Your task to perform on an android device: open app "Fetch Rewards" Image 0: 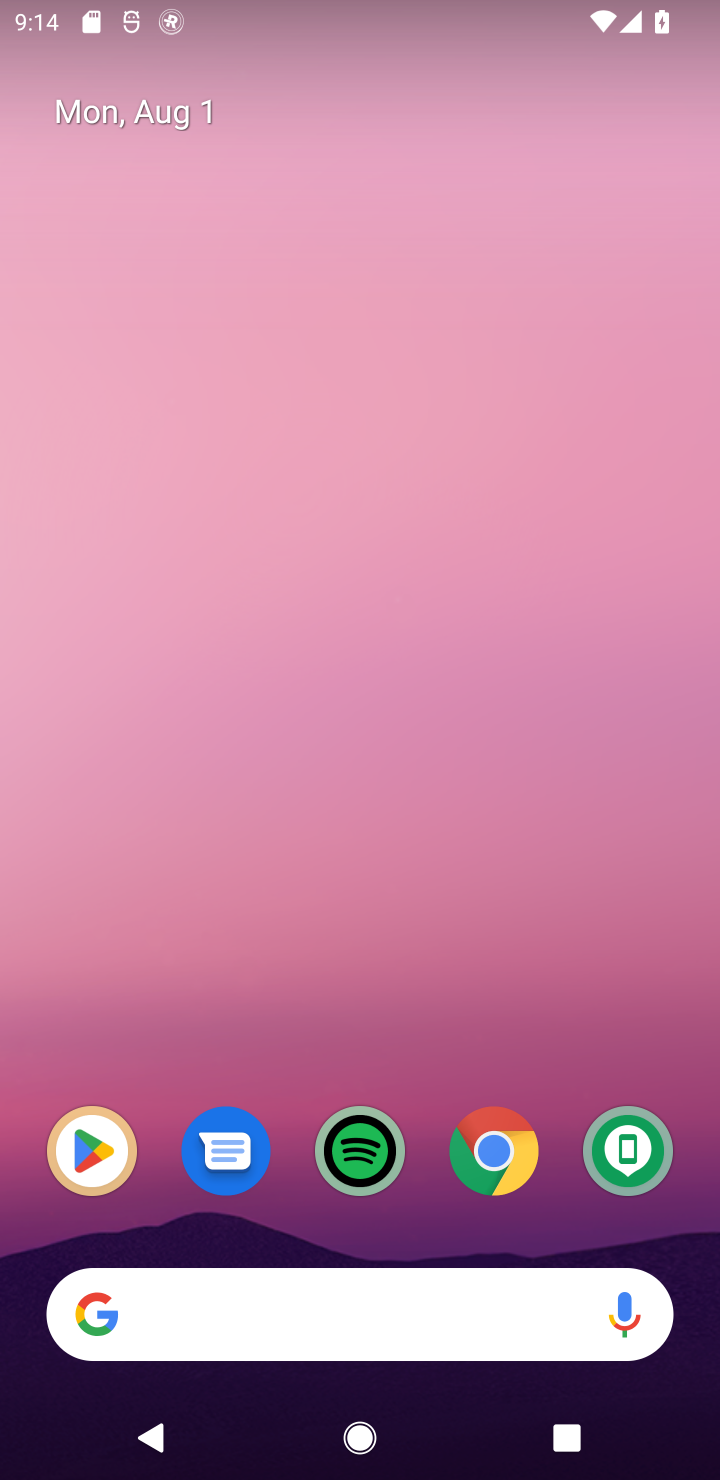
Step 0: click (102, 1141)
Your task to perform on an android device: open app "Fetch Rewards" Image 1: 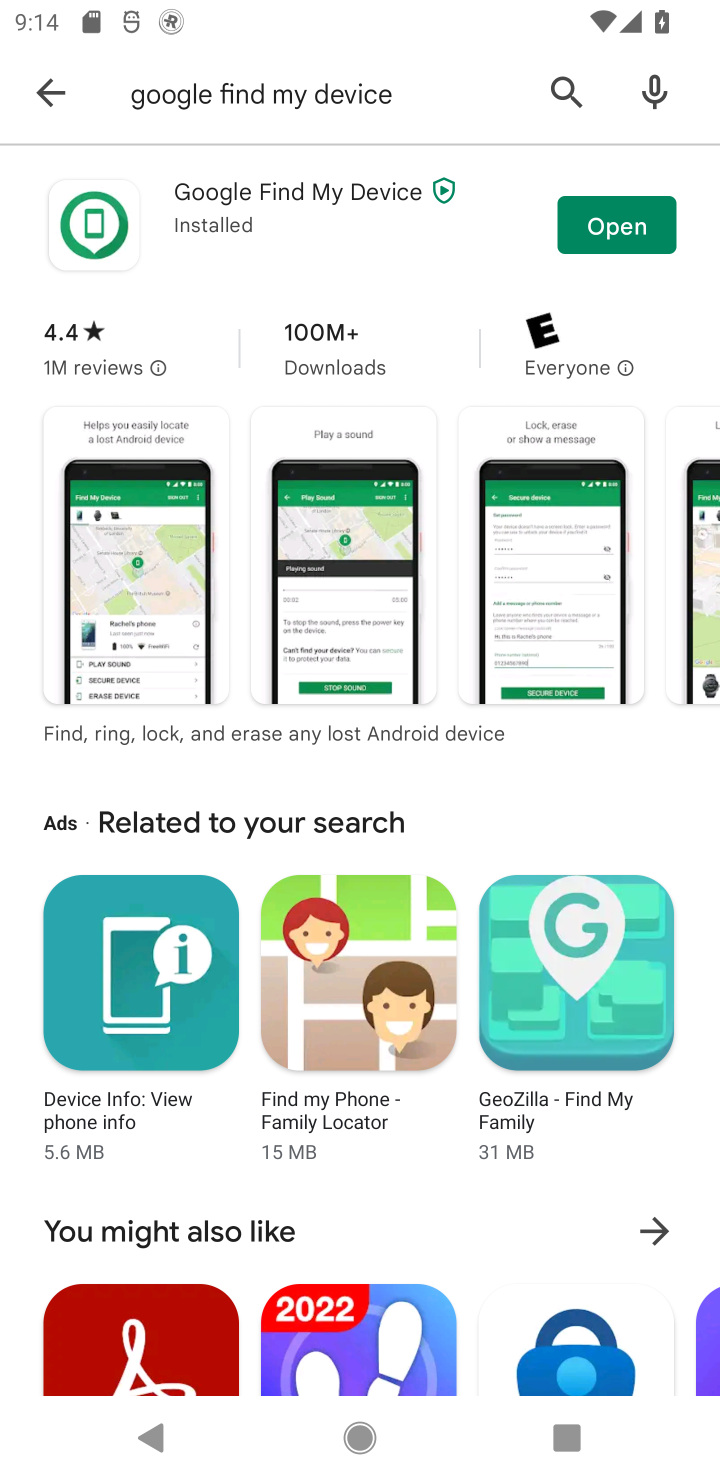
Step 1: click (584, 93)
Your task to perform on an android device: open app "Fetch Rewards" Image 2: 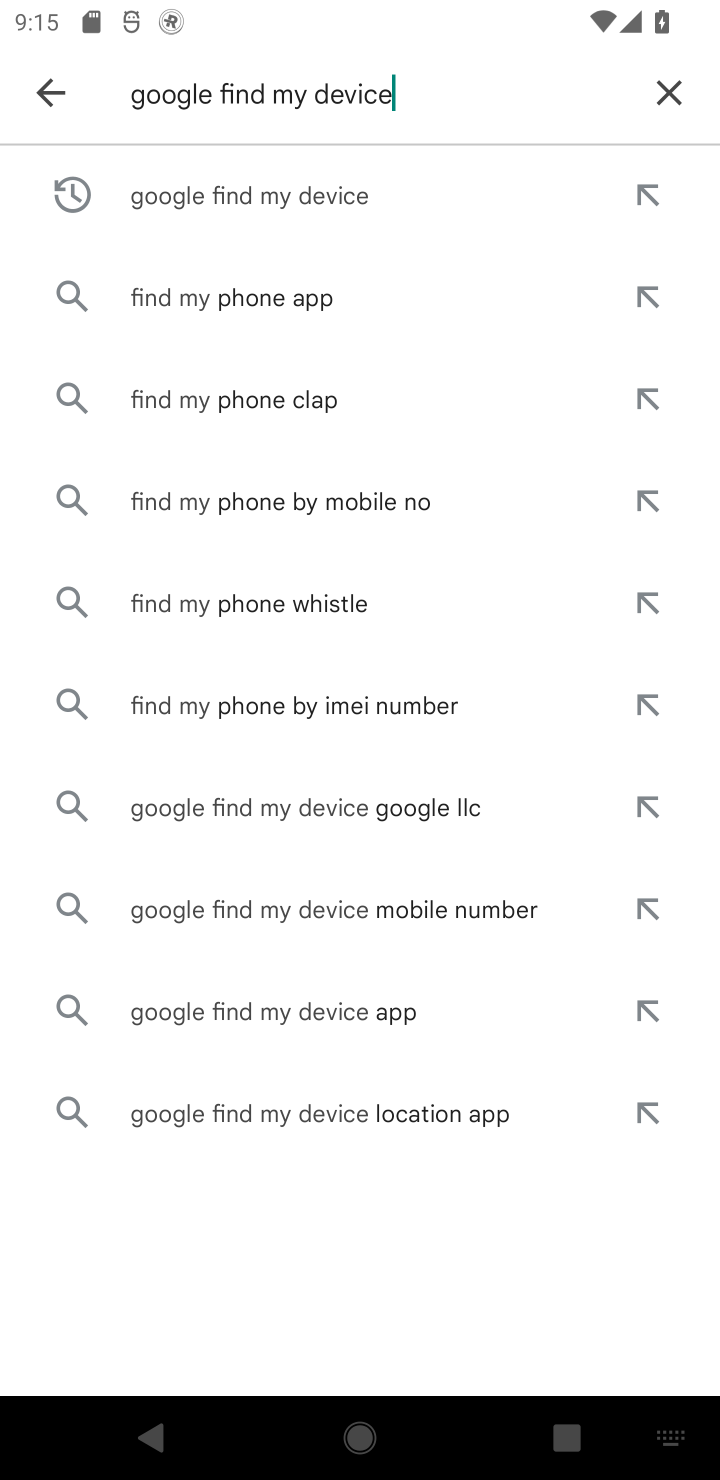
Step 2: click (675, 87)
Your task to perform on an android device: open app "Fetch Rewards" Image 3: 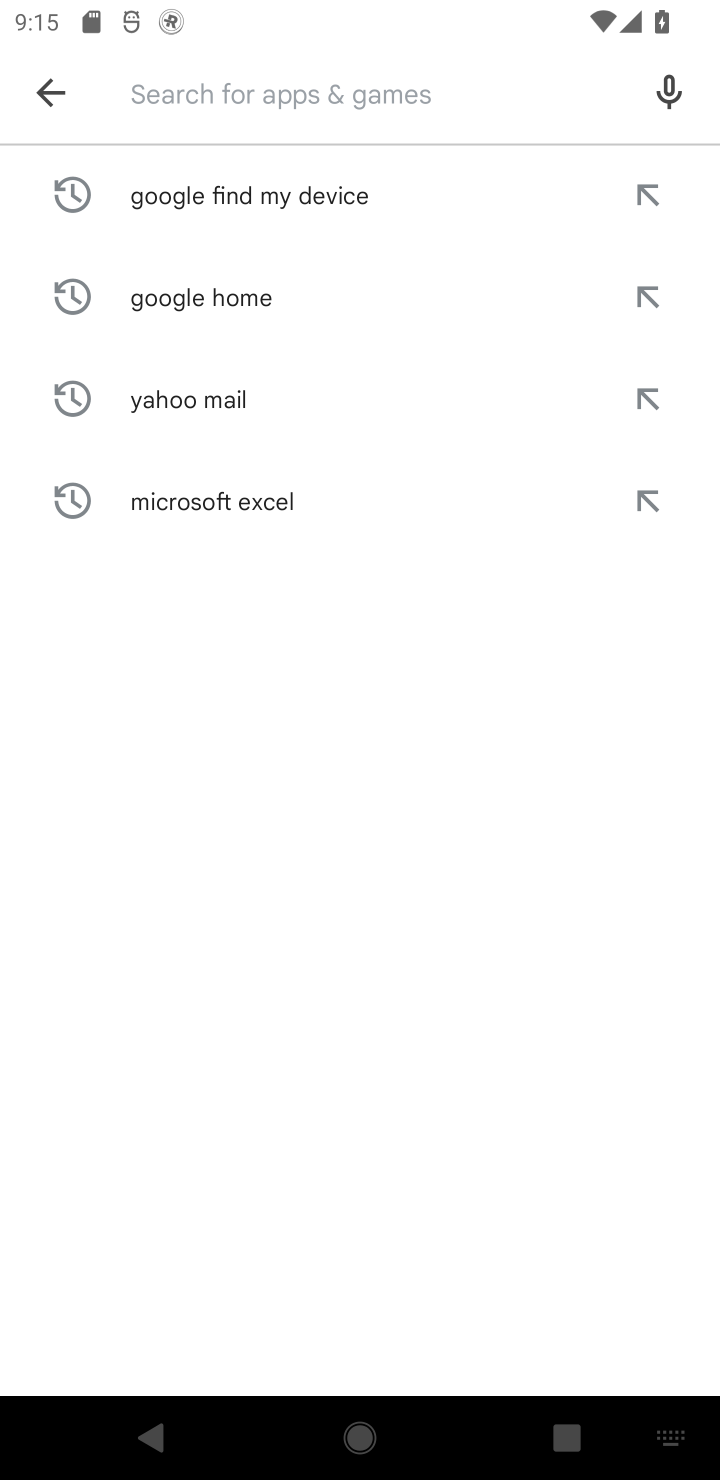
Step 3: type "Fetch Rewards"
Your task to perform on an android device: open app "Fetch Rewards" Image 4: 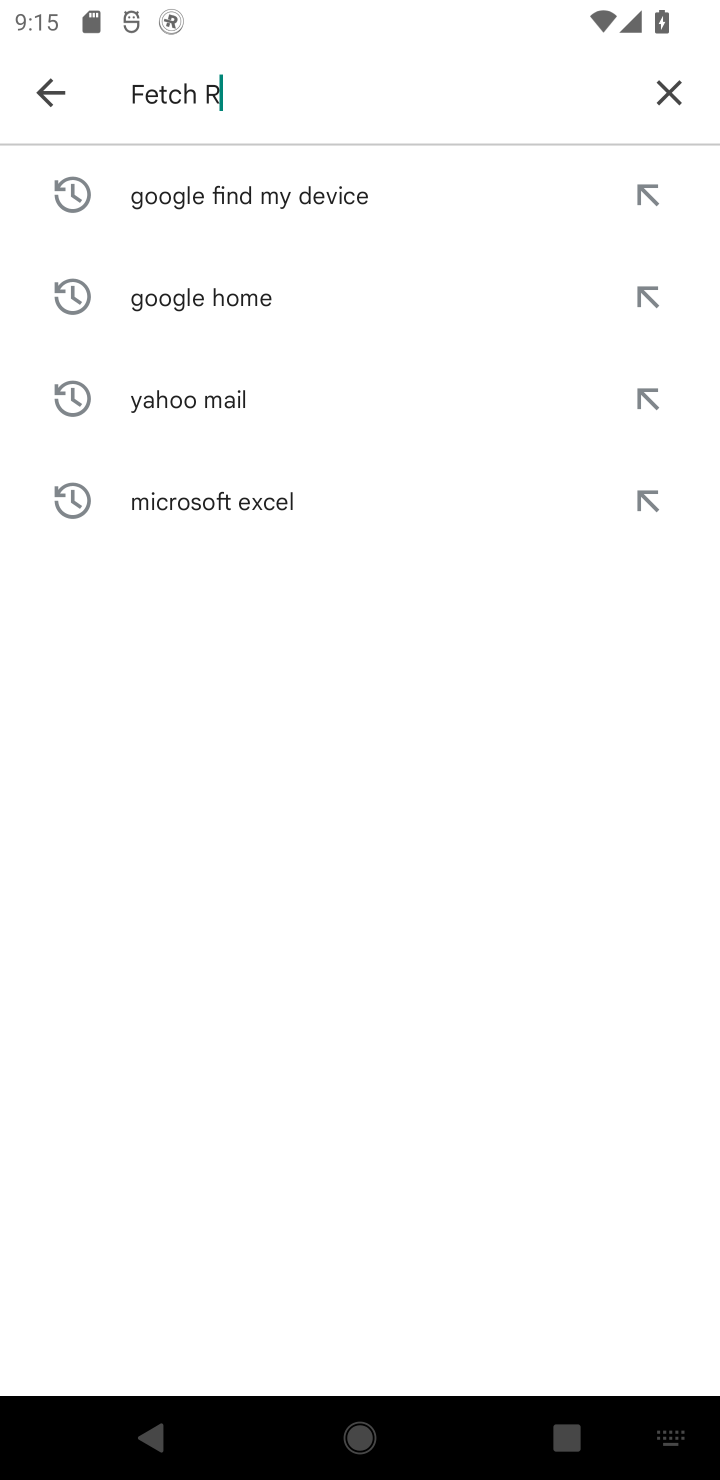
Step 4: type ""
Your task to perform on an android device: open app "Fetch Rewards" Image 5: 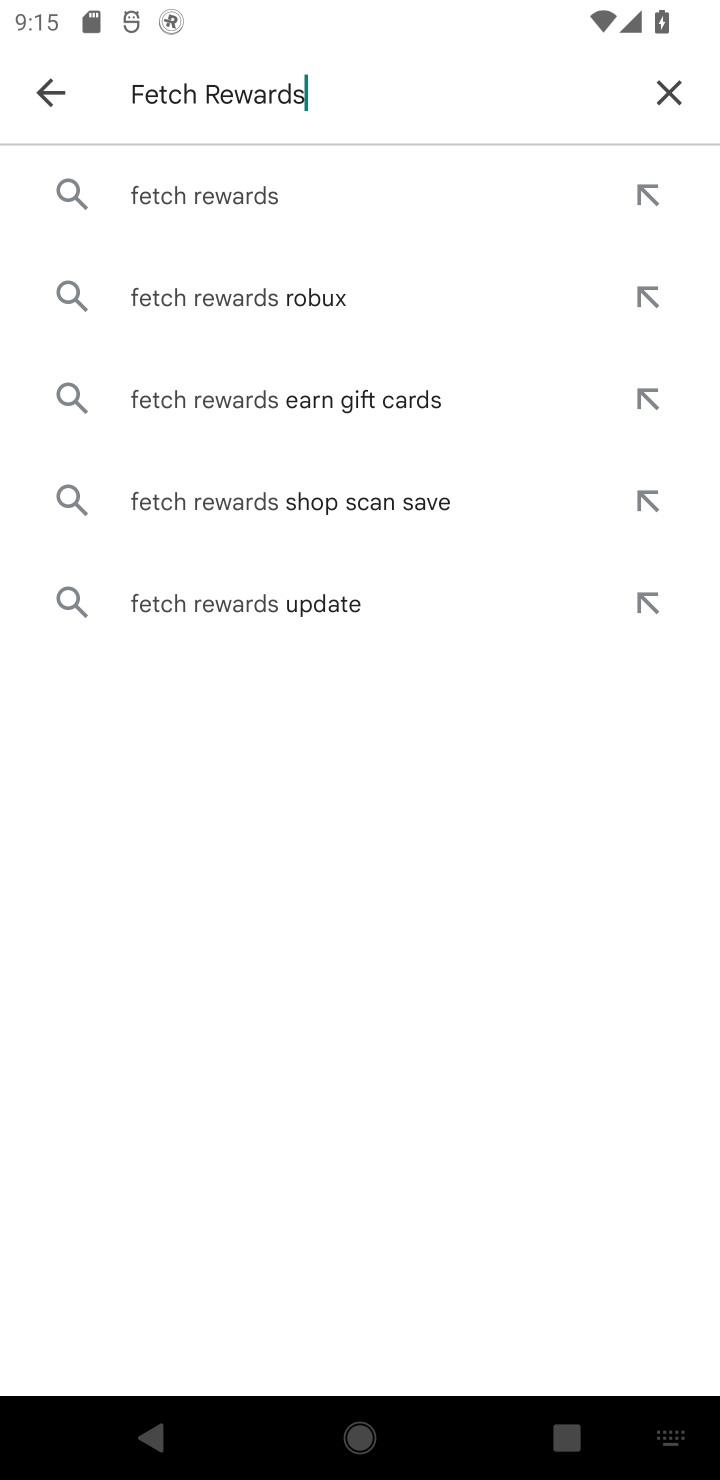
Step 5: click (225, 181)
Your task to perform on an android device: open app "Fetch Rewards" Image 6: 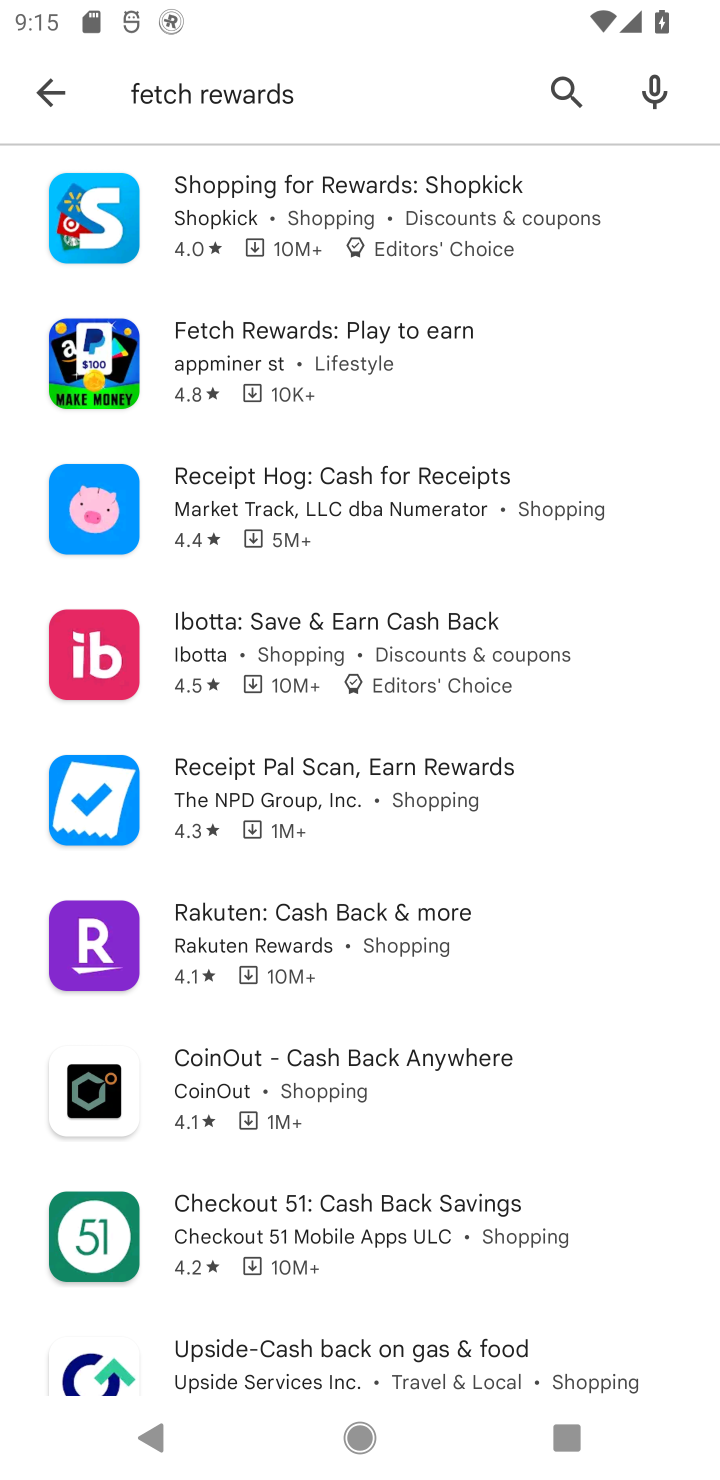
Step 6: click (322, 341)
Your task to perform on an android device: open app "Fetch Rewards" Image 7: 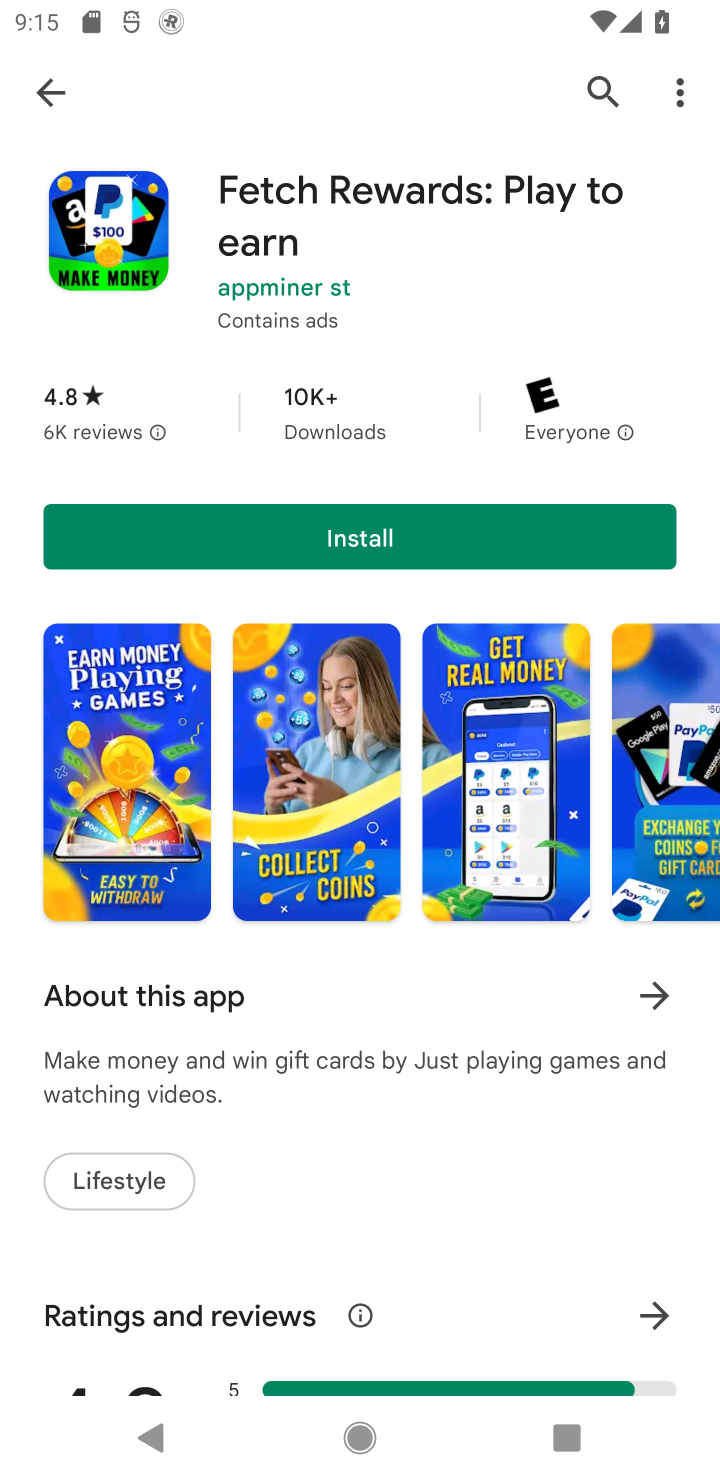
Step 7: task complete